Your task to perform on an android device: Open eBay Image 0: 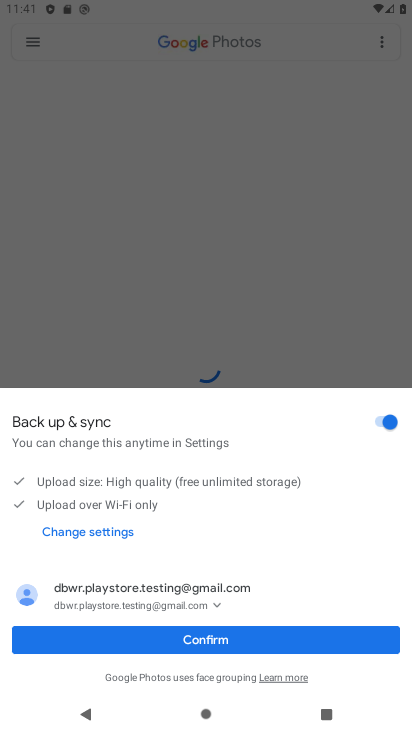
Step 0: press back button
Your task to perform on an android device: Open eBay Image 1: 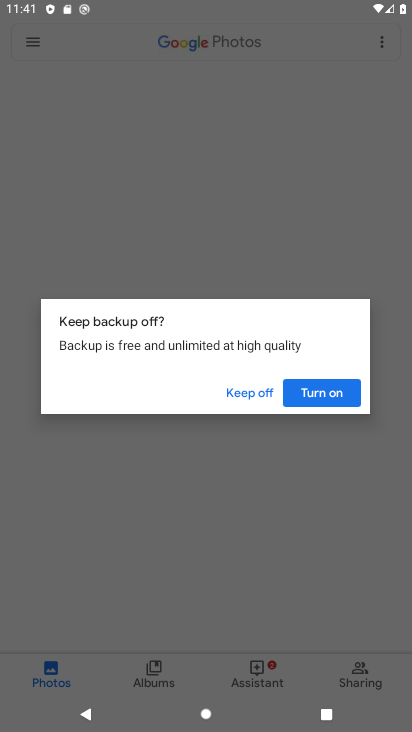
Step 1: press back button
Your task to perform on an android device: Open eBay Image 2: 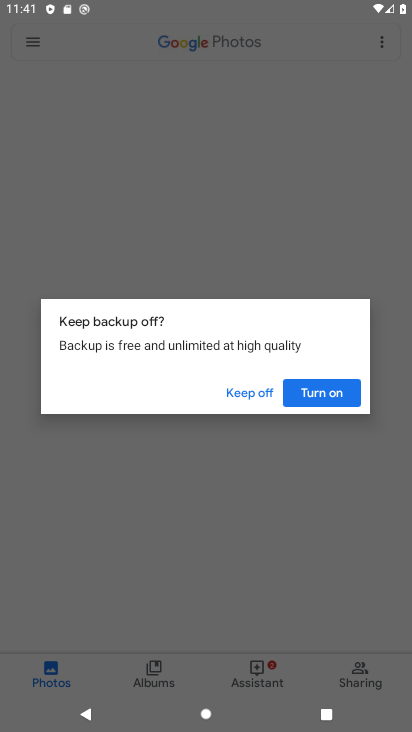
Step 2: press home button
Your task to perform on an android device: Open eBay Image 3: 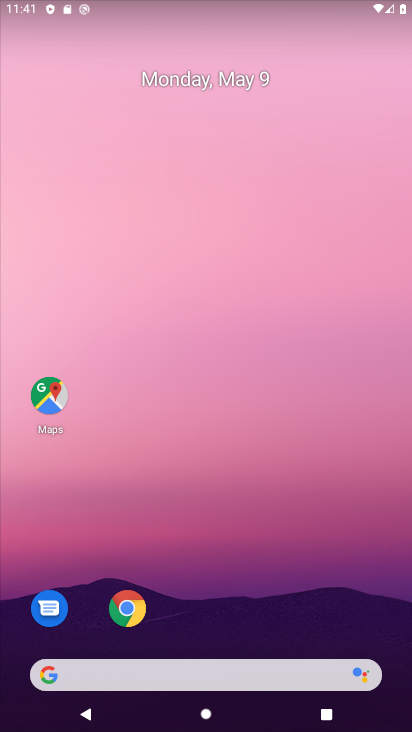
Step 3: drag from (216, 573) to (194, 1)
Your task to perform on an android device: Open eBay Image 4: 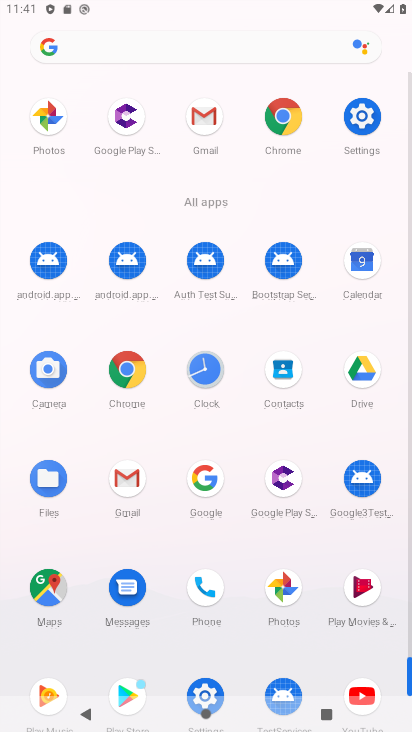
Step 4: click (280, 117)
Your task to perform on an android device: Open eBay Image 5: 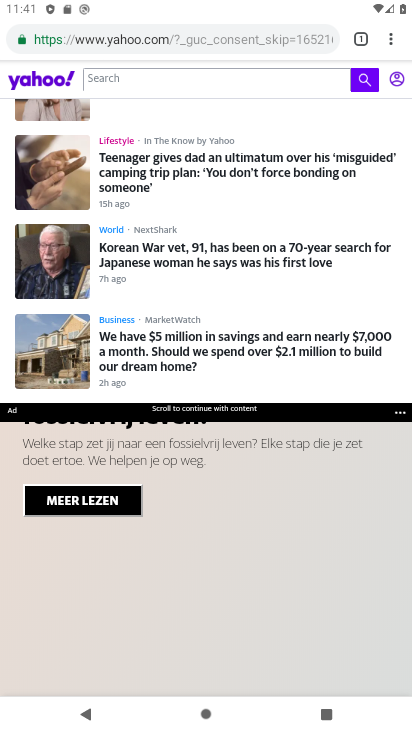
Step 5: click (180, 37)
Your task to perform on an android device: Open eBay Image 6: 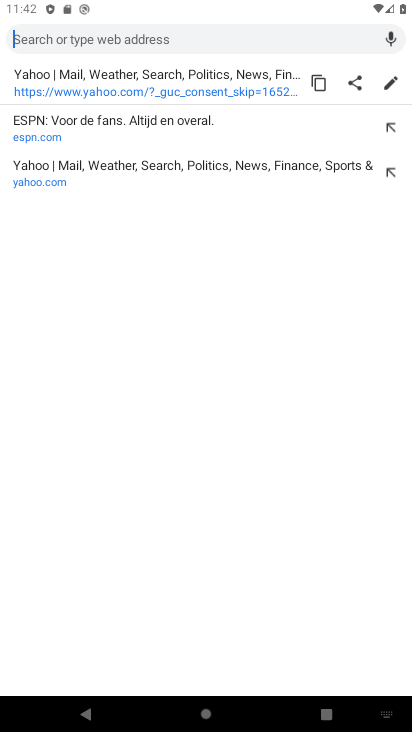
Step 6: type "eBay"
Your task to perform on an android device: Open eBay Image 7: 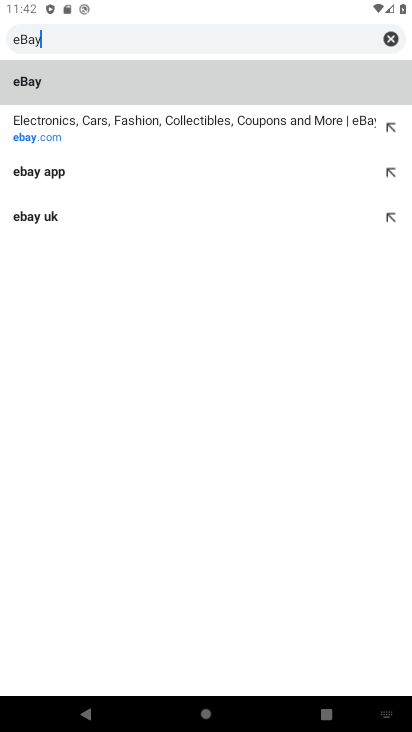
Step 7: type ""
Your task to perform on an android device: Open eBay Image 8: 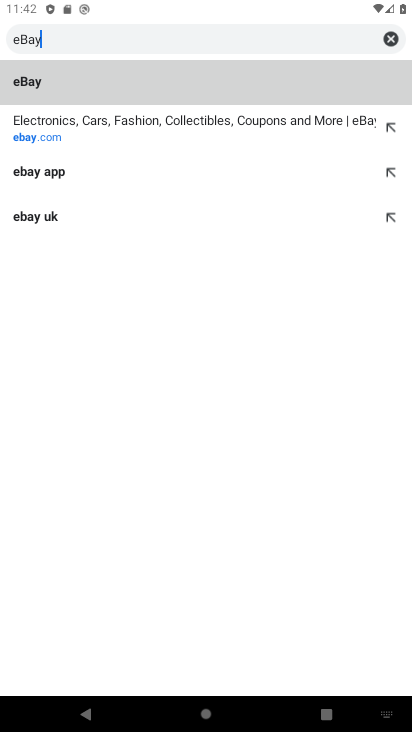
Step 8: click (171, 131)
Your task to perform on an android device: Open eBay Image 9: 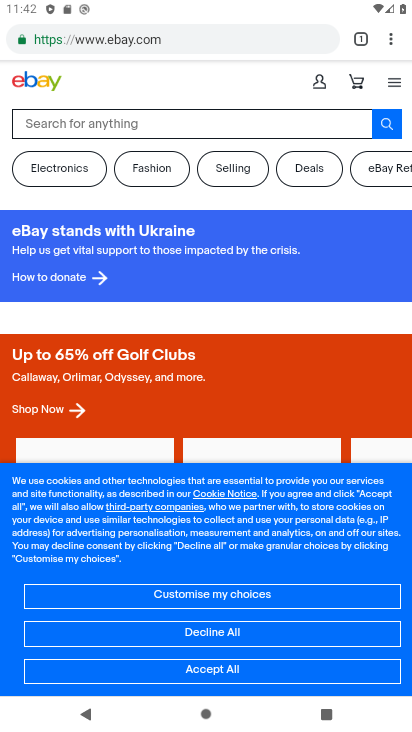
Step 9: task complete